Your task to perform on an android device: turn off wifi Image 0: 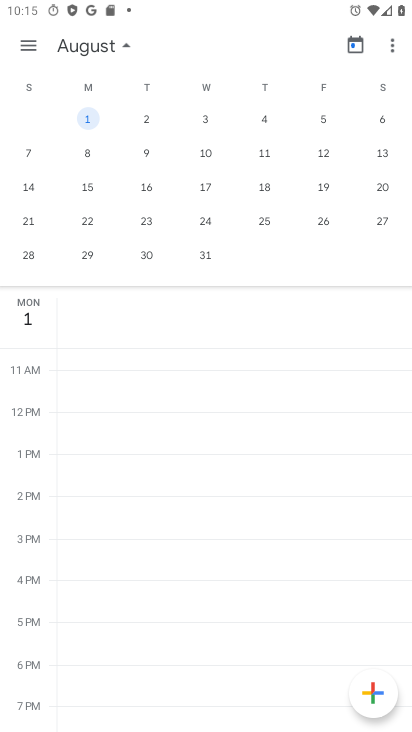
Step 0: press home button
Your task to perform on an android device: turn off wifi Image 1: 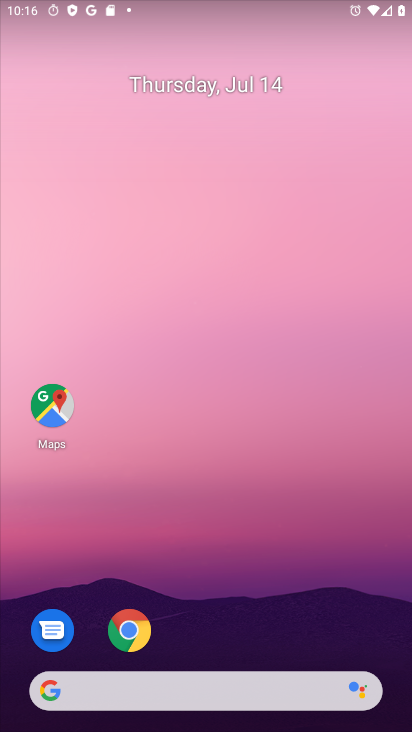
Step 1: drag from (144, 490) to (340, 198)
Your task to perform on an android device: turn off wifi Image 2: 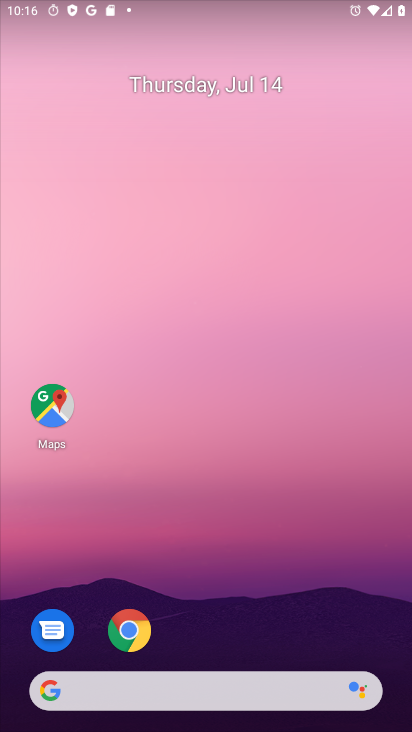
Step 2: drag from (70, 577) to (395, 38)
Your task to perform on an android device: turn off wifi Image 3: 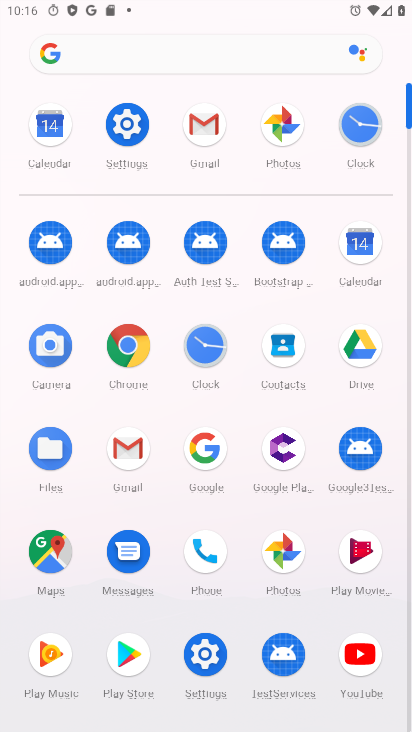
Step 3: click (202, 639)
Your task to perform on an android device: turn off wifi Image 4: 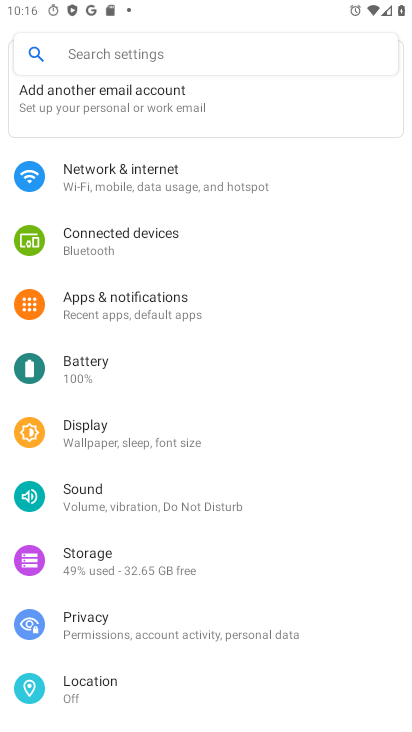
Step 4: click (126, 164)
Your task to perform on an android device: turn off wifi Image 5: 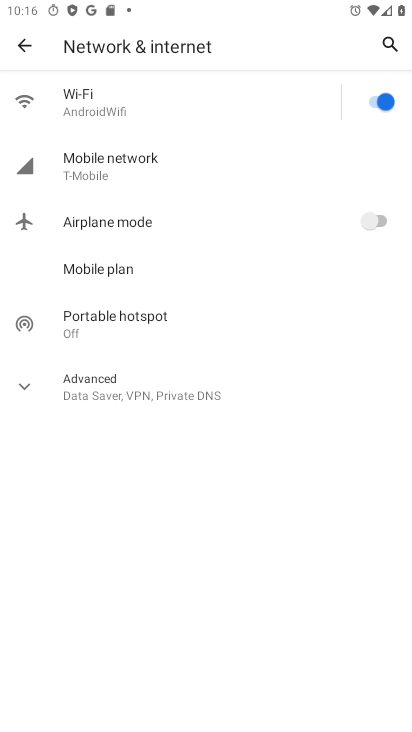
Step 5: click (80, 91)
Your task to perform on an android device: turn off wifi Image 6: 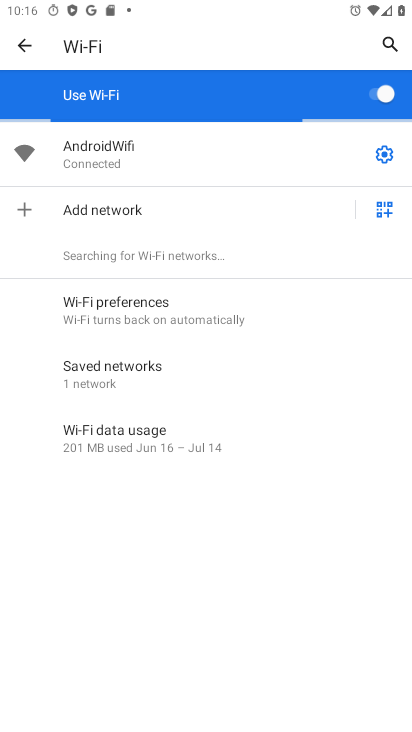
Step 6: task complete